Your task to perform on an android device: Open sound settings Image 0: 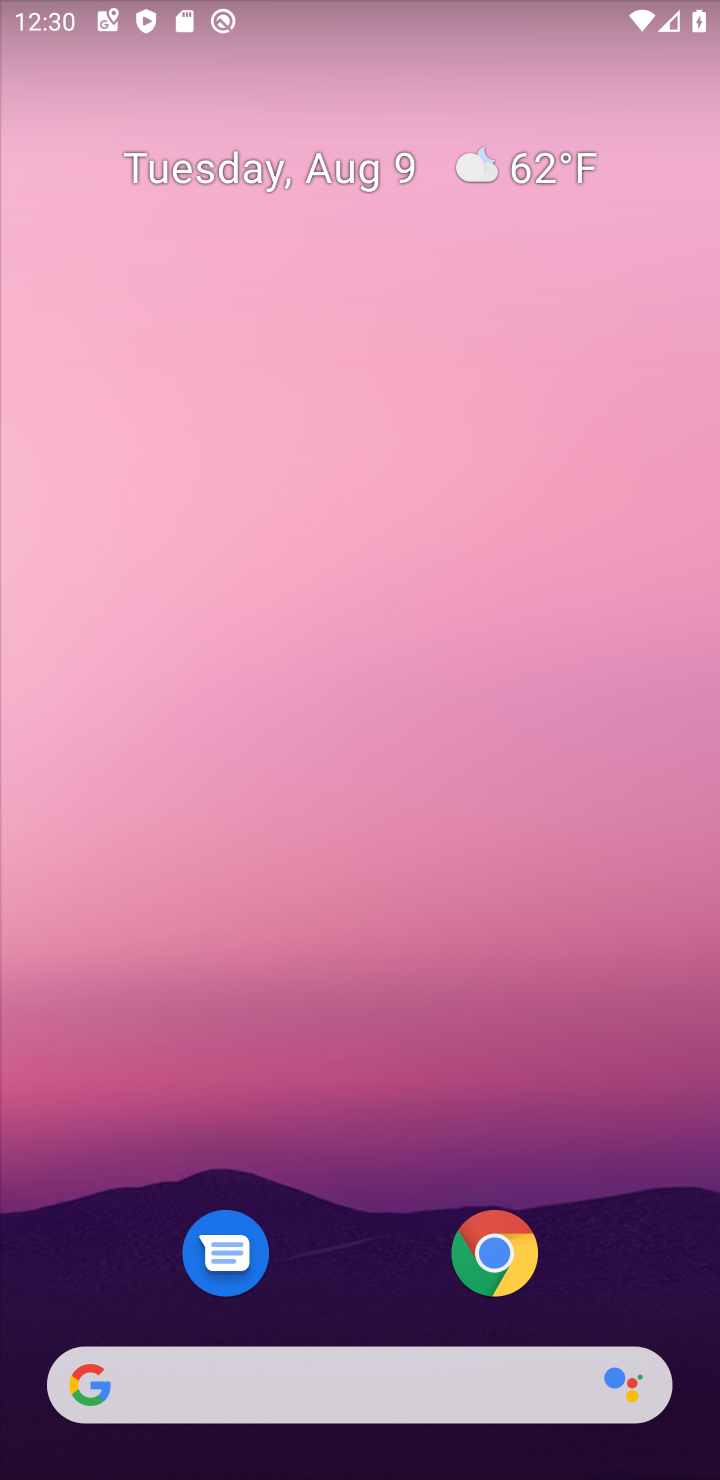
Step 0: drag from (635, 1251) to (461, 124)
Your task to perform on an android device: Open sound settings Image 1: 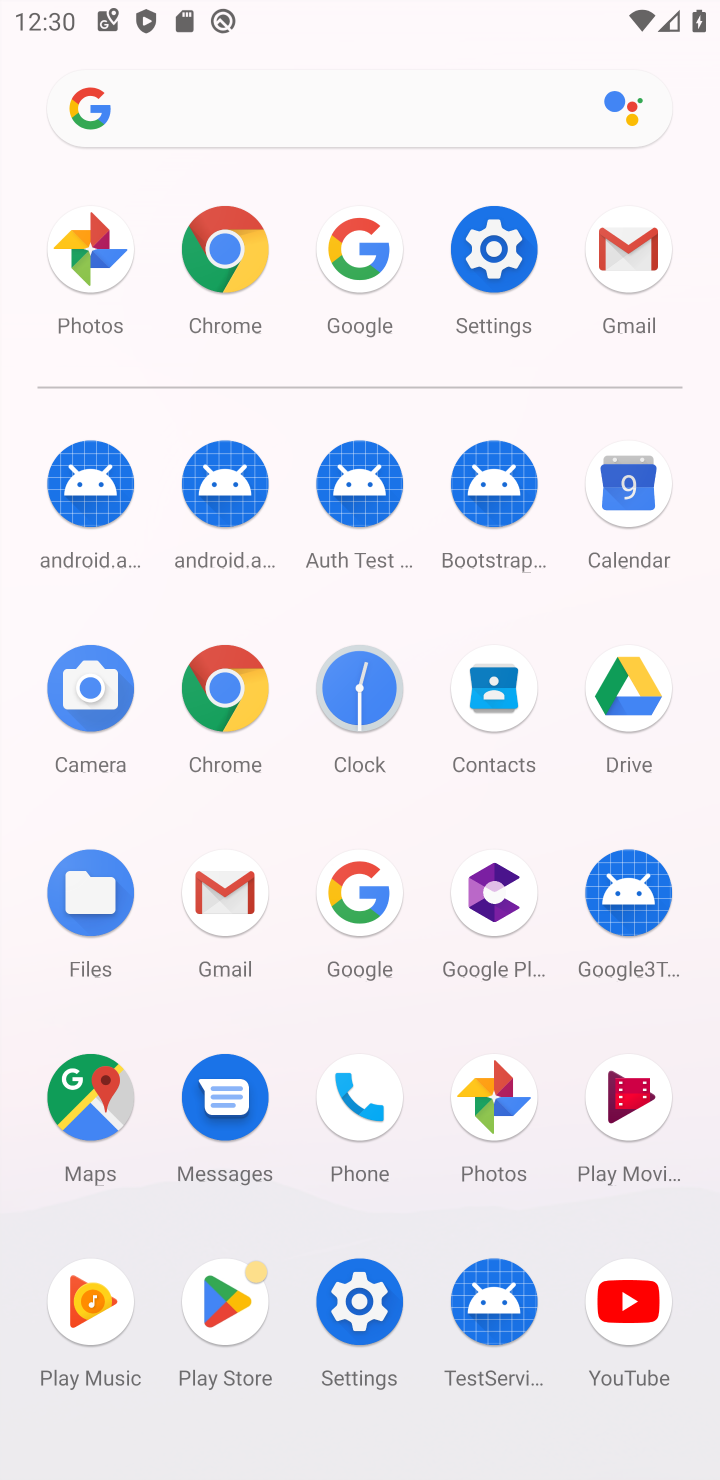
Step 1: click (327, 1304)
Your task to perform on an android device: Open sound settings Image 2: 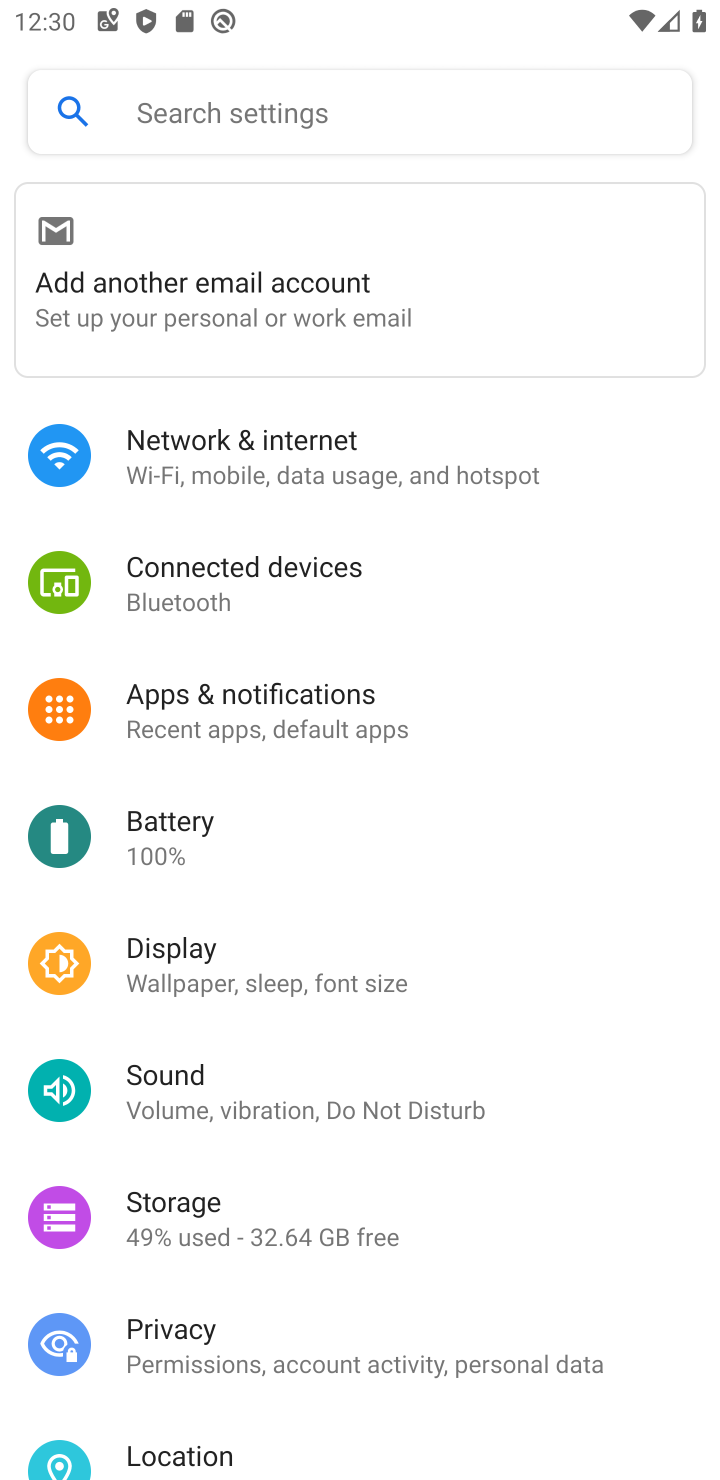
Step 2: click (250, 1083)
Your task to perform on an android device: Open sound settings Image 3: 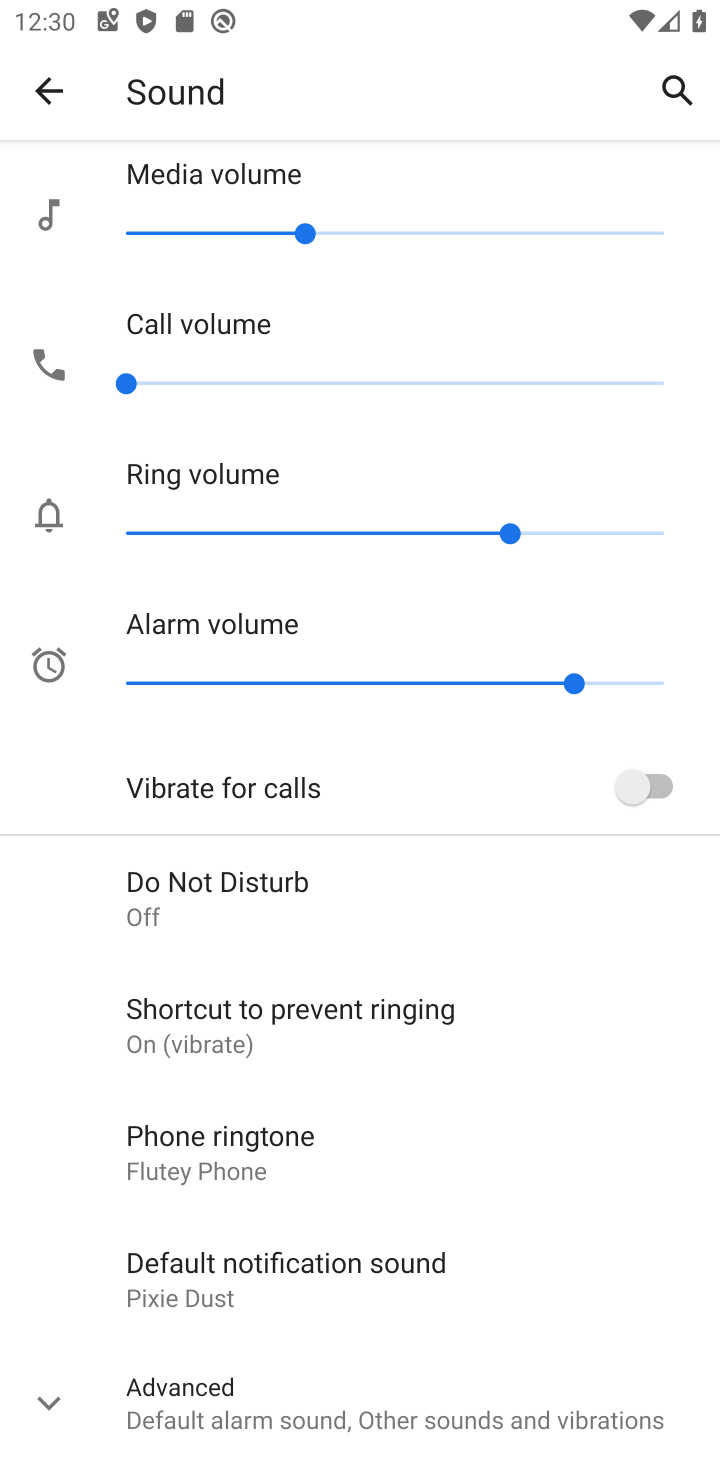
Step 3: task complete